Your task to perform on an android device: When is my next meeting? Image 0: 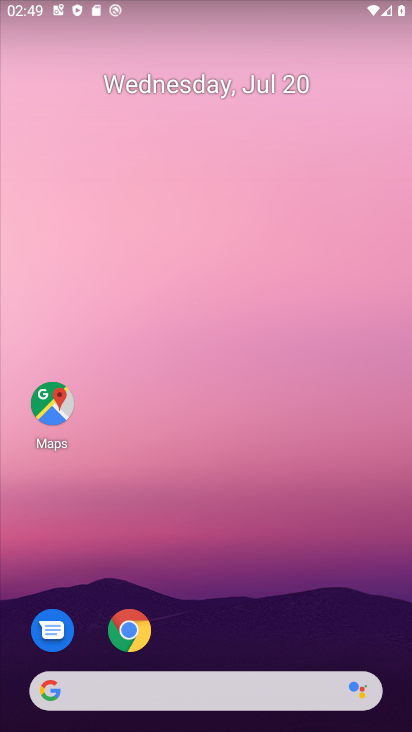
Step 0: drag from (336, 602) to (357, 53)
Your task to perform on an android device: When is my next meeting? Image 1: 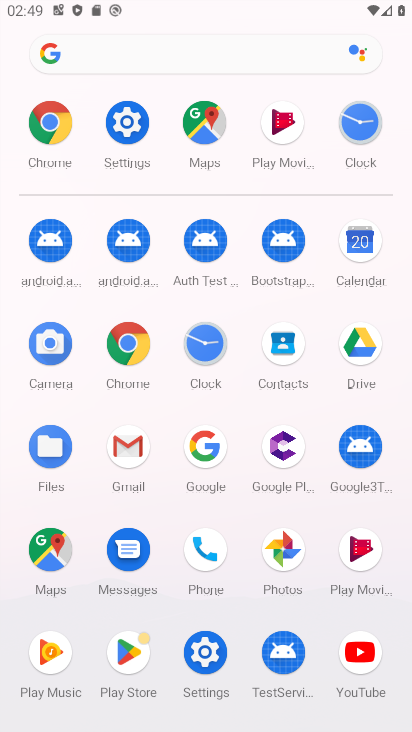
Step 1: click (350, 247)
Your task to perform on an android device: When is my next meeting? Image 2: 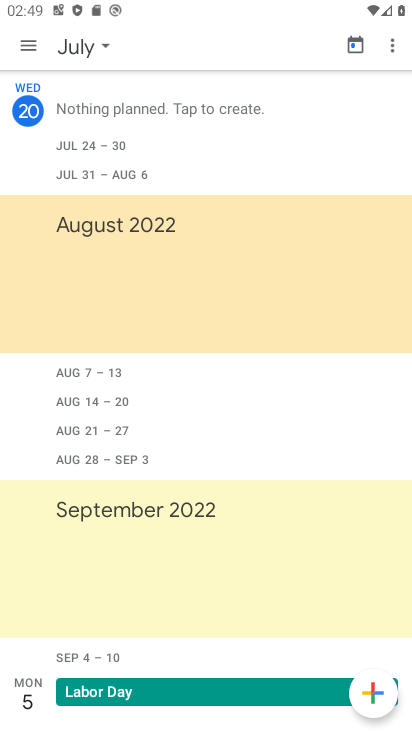
Step 2: task complete